Your task to perform on an android device: visit the assistant section in the google photos Image 0: 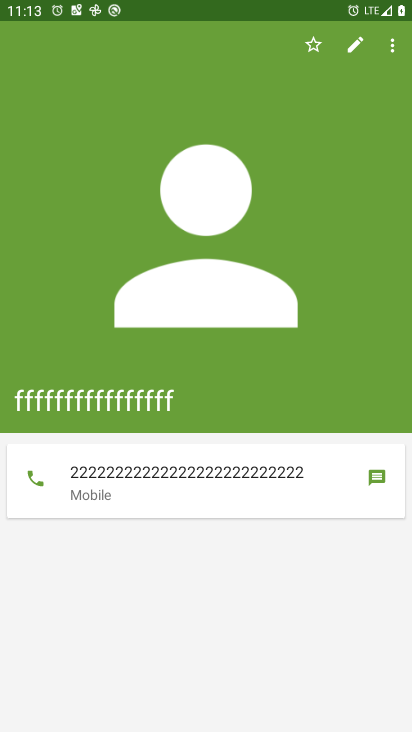
Step 0: press home button
Your task to perform on an android device: visit the assistant section in the google photos Image 1: 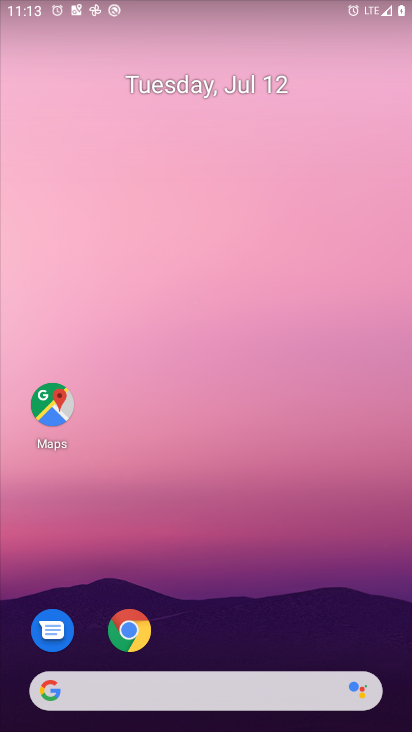
Step 1: drag from (221, 625) to (293, 52)
Your task to perform on an android device: visit the assistant section in the google photos Image 2: 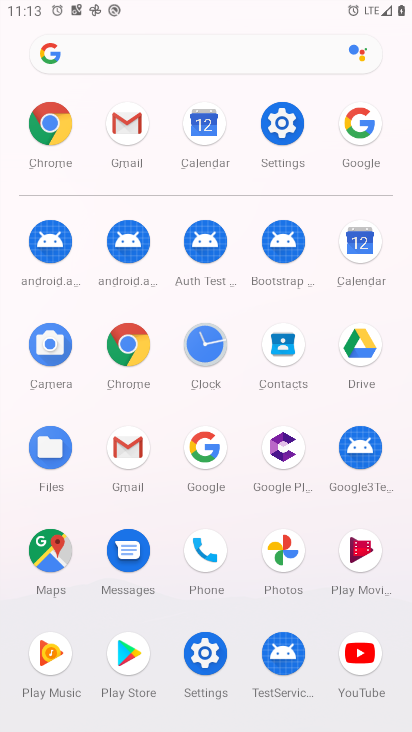
Step 2: click (281, 565)
Your task to perform on an android device: visit the assistant section in the google photos Image 3: 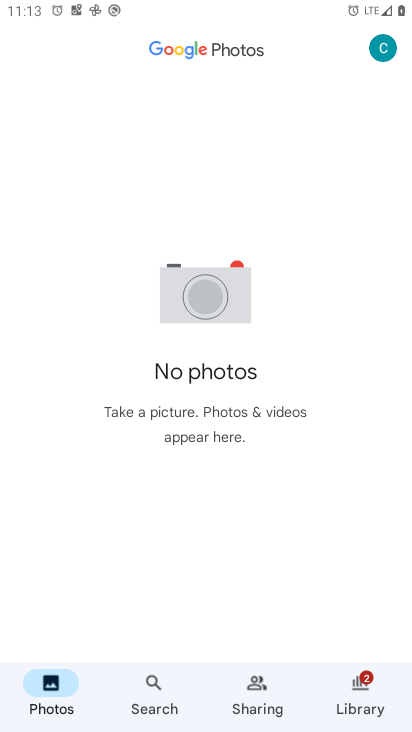
Step 3: click (380, 47)
Your task to perform on an android device: visit the assistant section in the google photos Image 4: 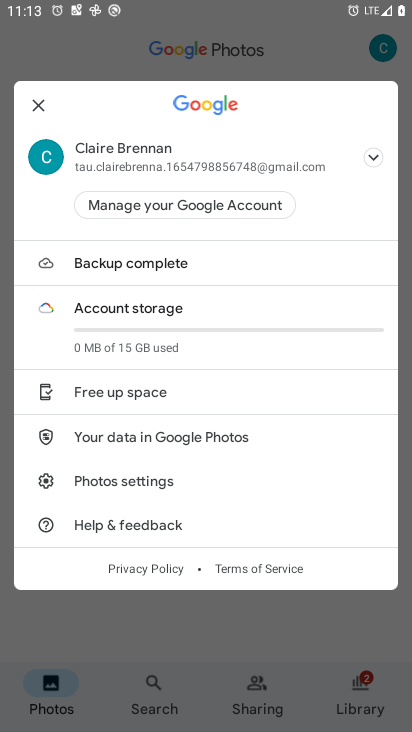
Step 4: click (274, 31)
Your task to perform on an android device: visit the assistant section in the google photos Image 5: 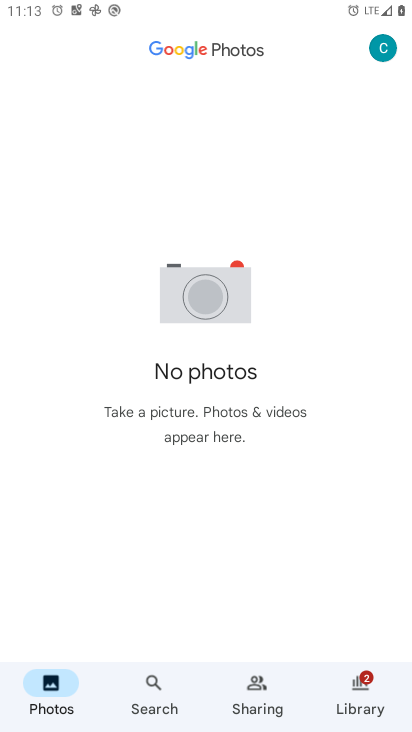
Step 5: click (39, 102)
Your task to perform on an android device: visit the assistant section in the google photos Image 6: 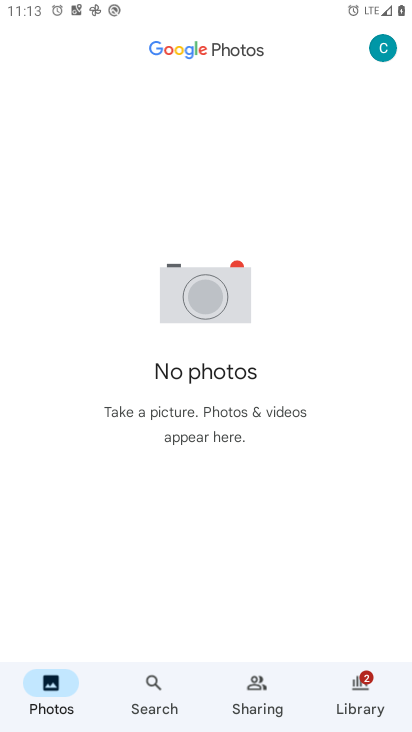
Step 6: task complete